Your task to perform on an android device: Find coffee shops on Maps Image 0: 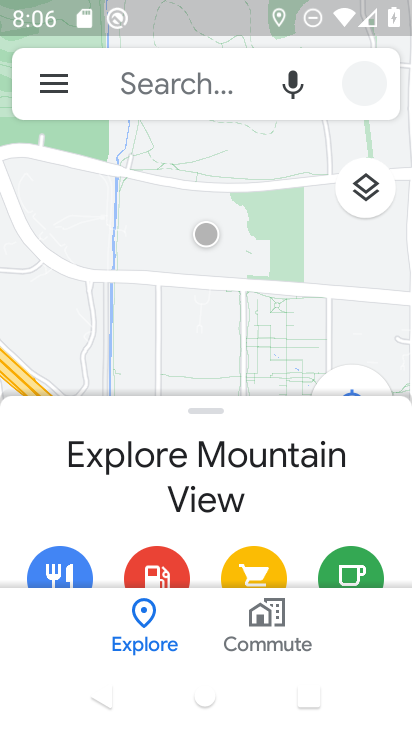
Step 0: click (192, 82)
Your task to perform on an android device: Find coffee shops on Maps Image 1: 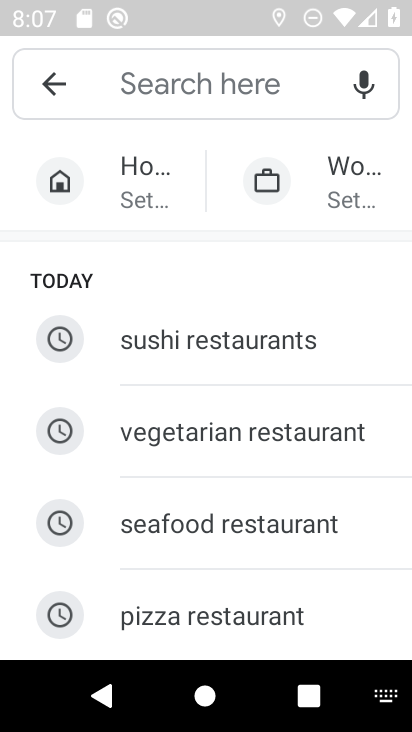
Step 1: drag from (182, 634) to (185, 359)
Your task to perform on an android device: Find coffee shops on Maps Image 2: 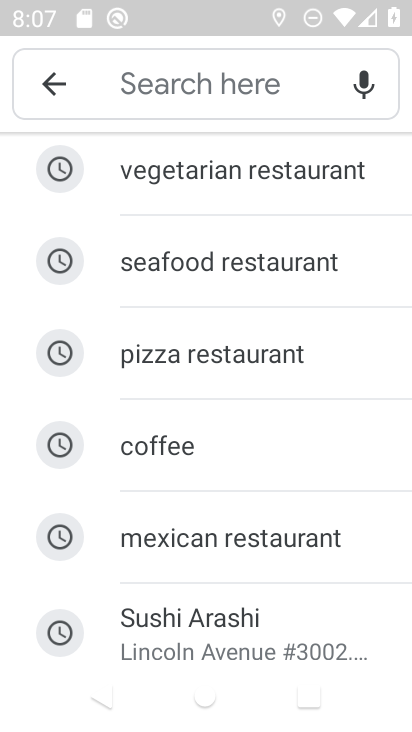
Step 2: click (156, 447)
Your task to perform on an android device: Find coffee shops on Maps Image 3: 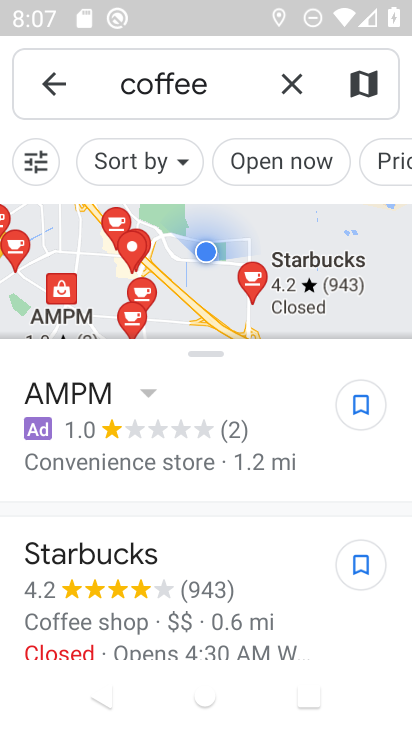
Step 3: task complete